Your task to perform on an android device: manage bookmarks in the chrome app Image 0: 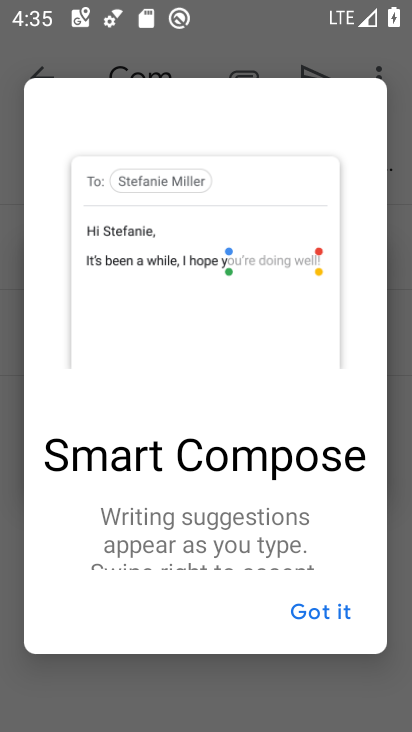
Step 0: press home button
Your task to perform on an android device: manage bookmarks in the chrome app Image 1: 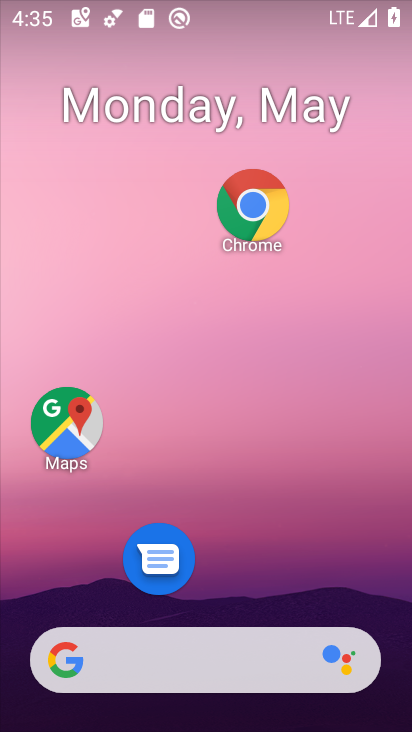
Step 1: click (276, 197)
Your task to perform on an android device: manage bookmarks in the chrome app Image 2: 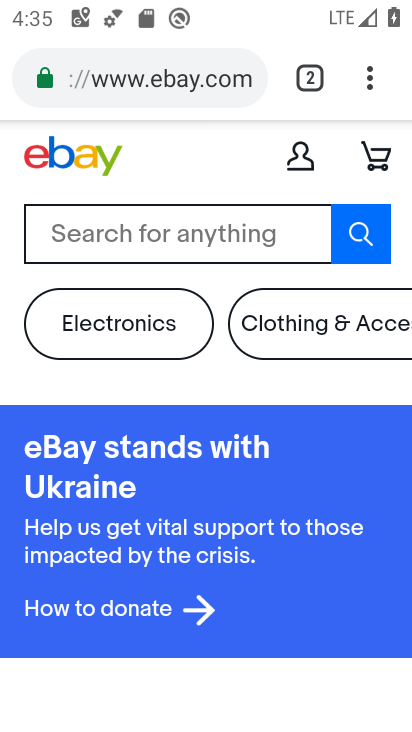
Step 2: click (370, 82)
Your task to perform on an android device: manage bookmarks in the chrome app Image 3: 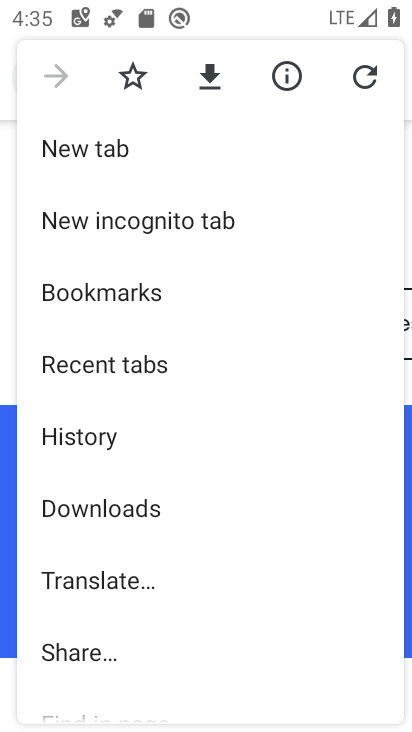
Step 3: click (138, 297)
Your task to perform on an android device: manage bookmarks in the chrome app Image 4: 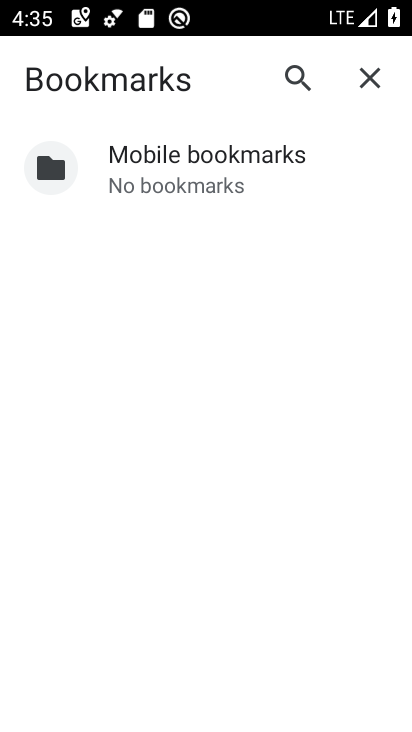
Step 4: click (187, 171)
Your task to perform on an android device: manage bookmarks in the chrome app Image 5: 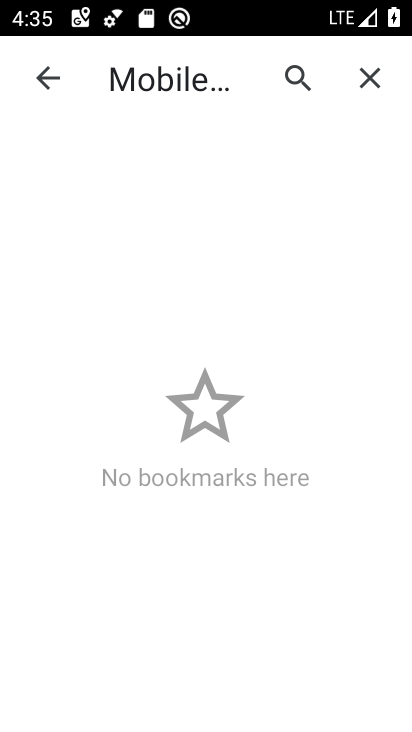
Step 5: task complete